Your task to perform on an android device: Search for macbook pro on costco, select the first entry, add it to the cart, then select checkout. Image 0: 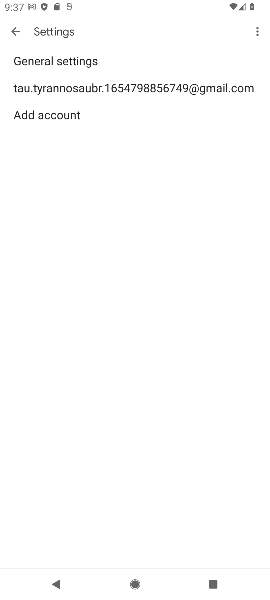
Step 0: press home button
Your task to perform on an android device: Search for macbook pro on costco, select the first entry, add it to the cart, then select checkout. Image 1: 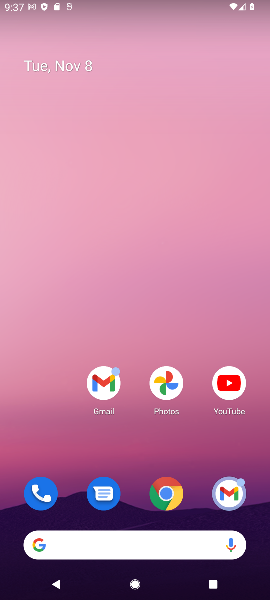
Step 1: click (169, 500)
Your task to perform on an android device: Search for macbook pro on costco, select the first entry, add it to the cart, then select checkout. Image 2: 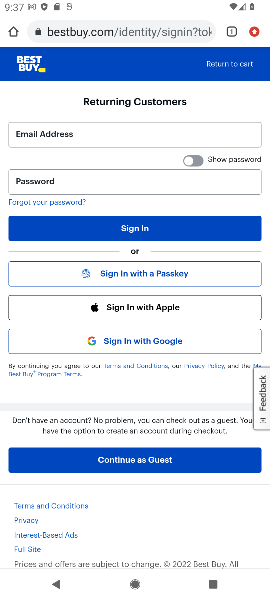
Step 2: click (86, 33)
Your task to perform on an android device: Search for macbook pro on costco, select the first entry, add it to the cart, then select checkout. Image 3: 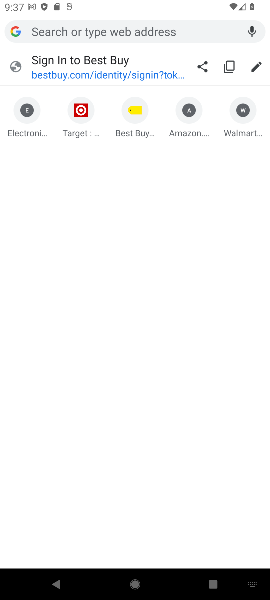
Step 3: type "costco.com"
Your task to perform on an android device: Search for macbook pro on costco, select the first entry, add it to the cart, then select checkout. Image 4: 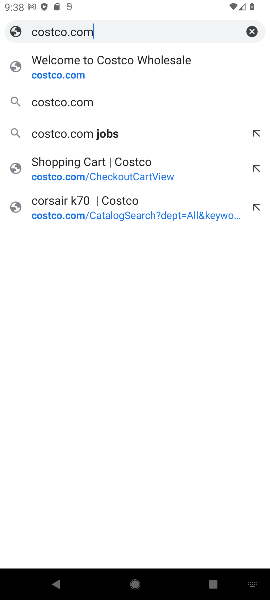
Step 4: click (56, 75)
Your task to perform on an android device: Search for macbook pro on costco, select the first entry, add it to the cart, then select checkout. Image 5: 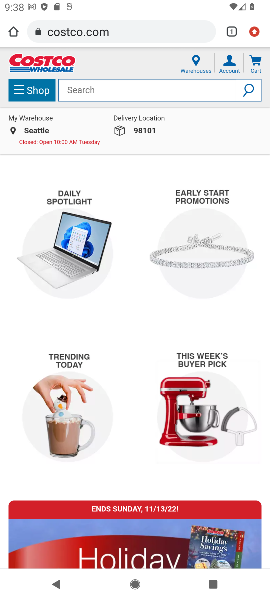
Step 5: click (102, 91)
Your task to perform on an android device: Search for macbook pro on costco, select the first entry, add it to the cart, then select checkout. Image 6: 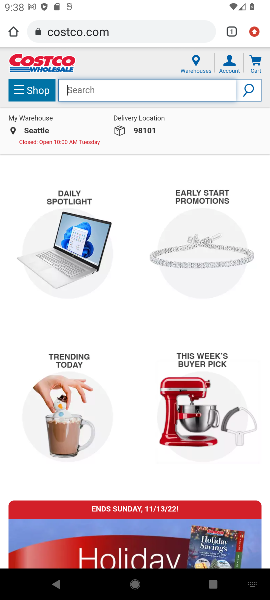
Step 6: type "macbook pro"
Your task to perform on an android device: Search for macbook pro on costco, select the first entry, add it to the cart, then select checkout. Image 7: 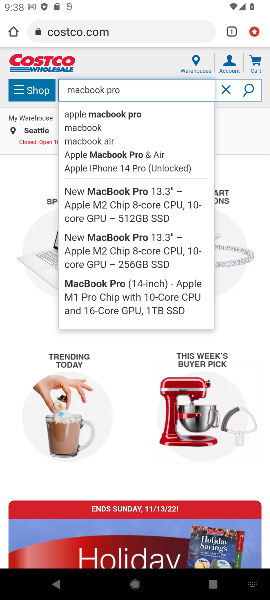
Step 7: click (247, 88)
Your task to perform on an android device: Search for macbook pro on costco, select the first entry, add it to the cart, then select checkout. Image 8: 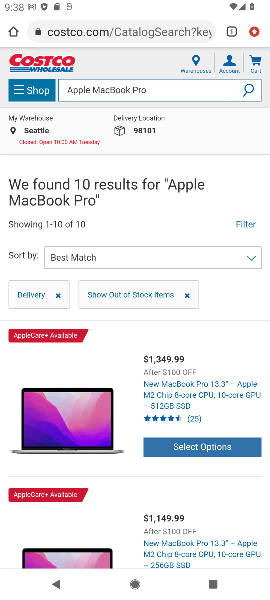
Step 8: click (87, 422)
Your task to perform on an android device: Search for macbook pro on costco, select the first entry, add it to the cart, then select checkout. Image 9: 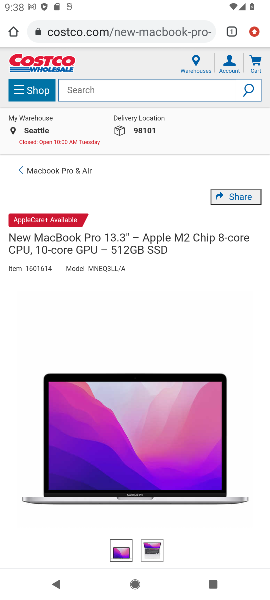
Step 9: drag from (123, 437) to (126, 120)
Your task to perform on an android device: Search for macbook pro on costco, select the first entry, add it to the cart, then select checkout. Image 10: 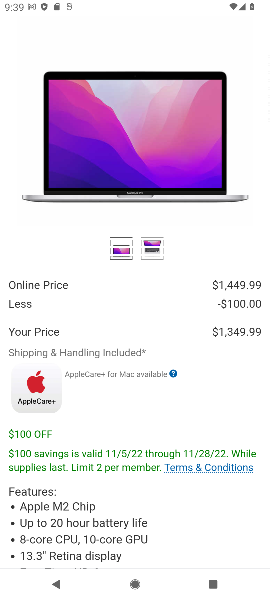
Step 10: drag from (136, 403) to (118, 162)
Your task to perform on an android device: Search for macbook pro on costco, select the first entry, add it to the cart, then select checkout. Image 11: 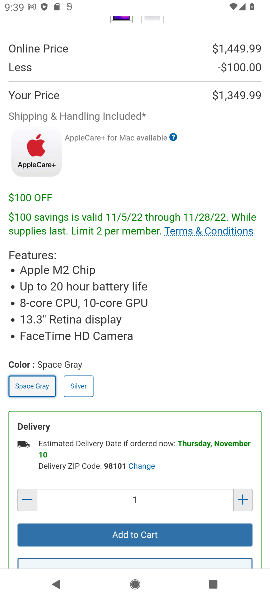
Step 11: click (127, 536)
Your task to perform on an android device: Search for macbook pro on costco, select the first entry, add it to the cart, then select checkout. Image 12: 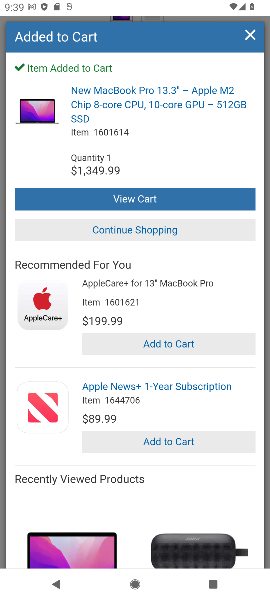
Step 12: click (129, 200)
Your task to perform on an android device: Search for macbook pro on costco, select the first entry, add it to the cart, then select checkout. Image 13: 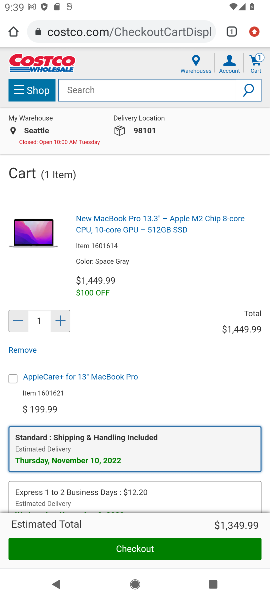
Step 13: drag from (124, 385) to (130, 277)
Your task to perform on an android device: Search for macbook pro on costco, select the first entry, add it to the cart, then select checkout. Image 14: 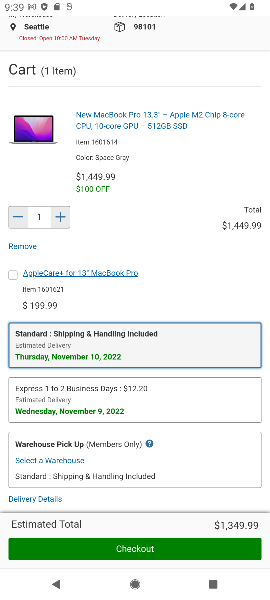
Step 14: click (129, 545)
Your task to perform on an android device: Search for macbook pro on costco, select the first entry, add it to the cart, then select checkout. Image 15: 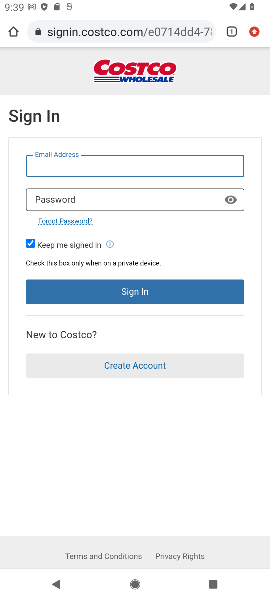
Step 15: task complete